Your task to perform on an android device: Check the news Image 0: 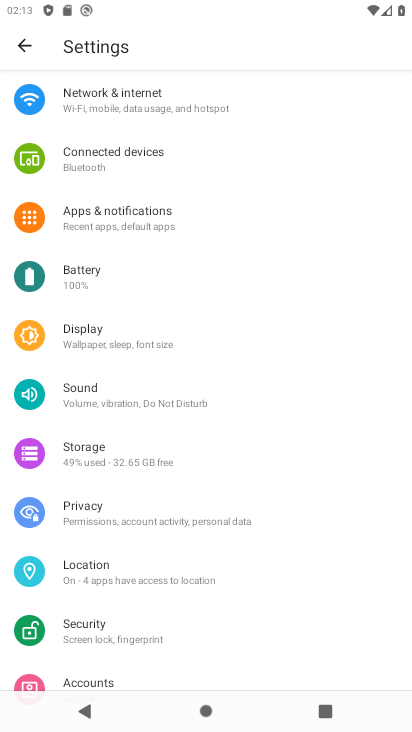
Step 0: press home button
Your task to perform on an android device: Check the news Image 1: 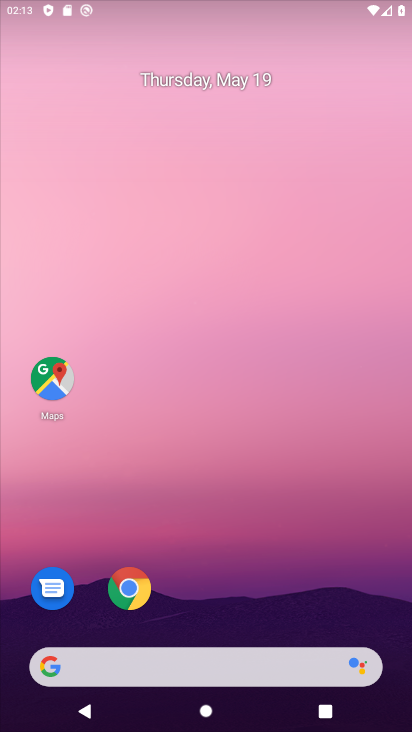
Step 1: drag from (248, 546) to (275, 14)
Your task to perform on an android device: Check the news Image 2: 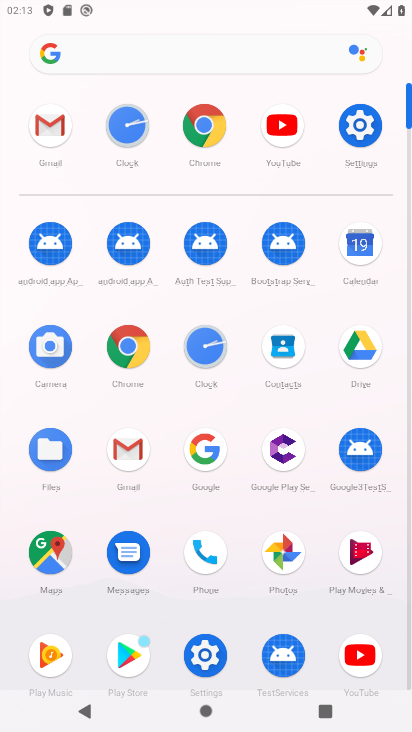
Step 2: click (205, 445)
Your task to perform on an android device: Check the news Image 3: 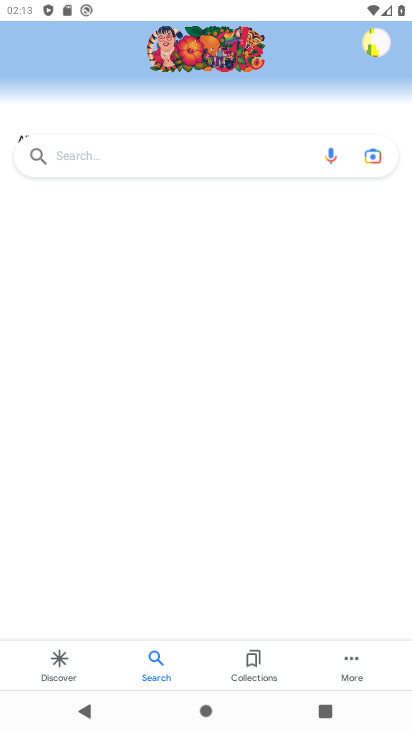
Step 3: click (147, 164)
Your task to perform on an android device: Check the news Image 4: 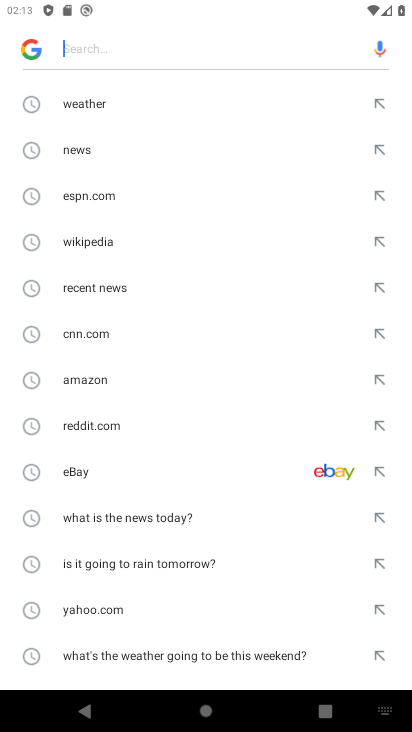
Step 4: click (98, 154)
Your task to perform on an android device: Check the news Image 5: 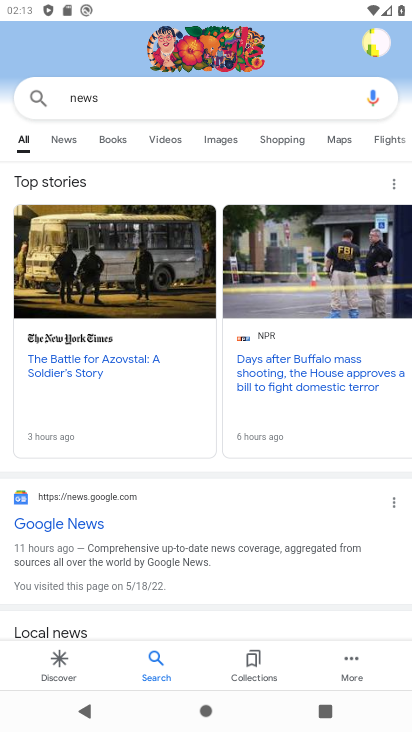
Step 5: task complete